Your task to perform on an android device: toggle location history Image 0: 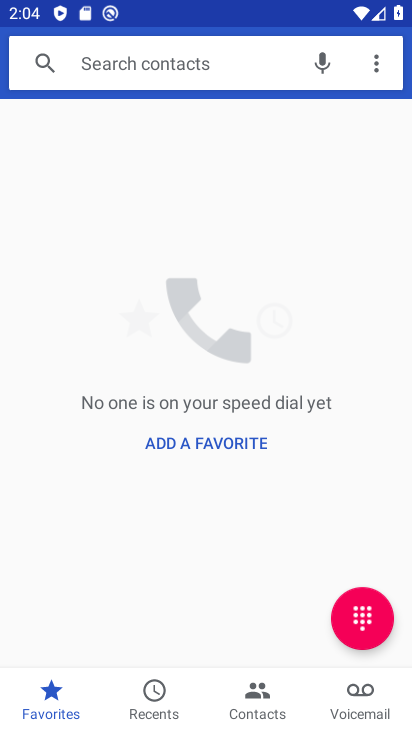
Step 0: press home button
Your task to perform on an android device: toggle location history Image 1: 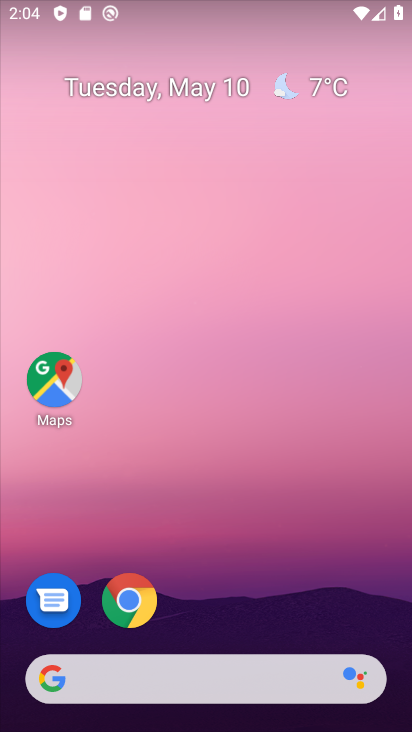
Step 1: drag from (179, 665) to (185, 253)
Your task to perform on an android device: toggle location history Image 2: 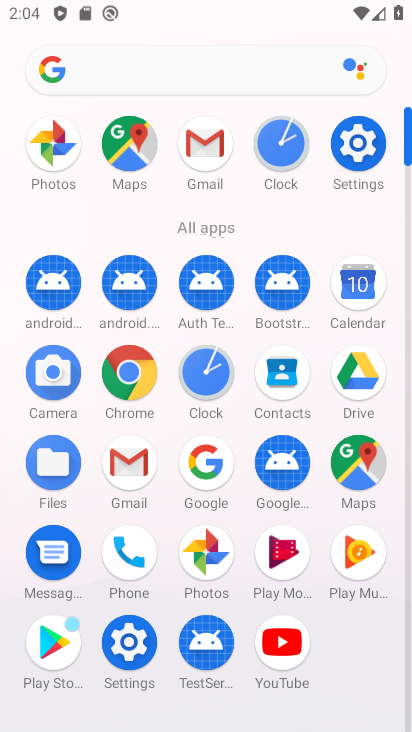
Step 2: click (127, 645)
Your task to perform on an android device: toggle location history Image 3: 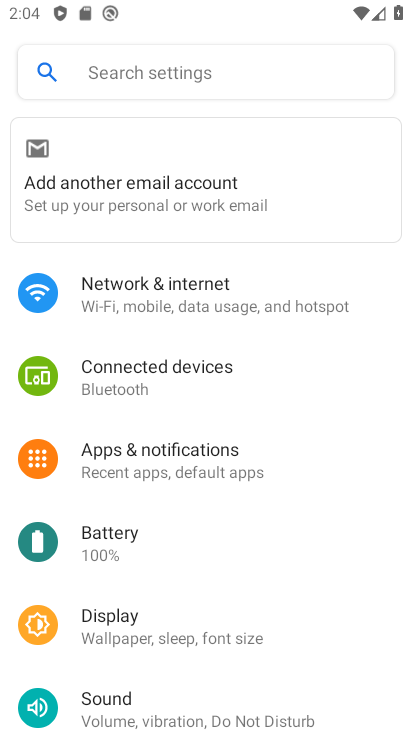
Step 3: drag from (155, 619) to (172, 11)
Your task to perform on an android device: toggle location history Image 4: 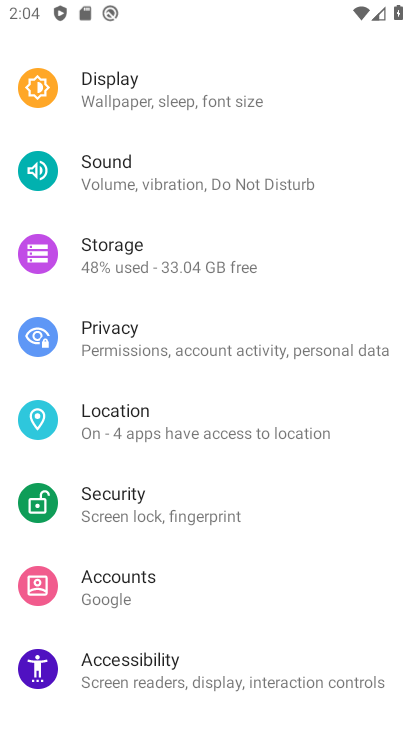
Step 4: click (143, 419)
Your task to perform on an android device: toggle location history Image 5: 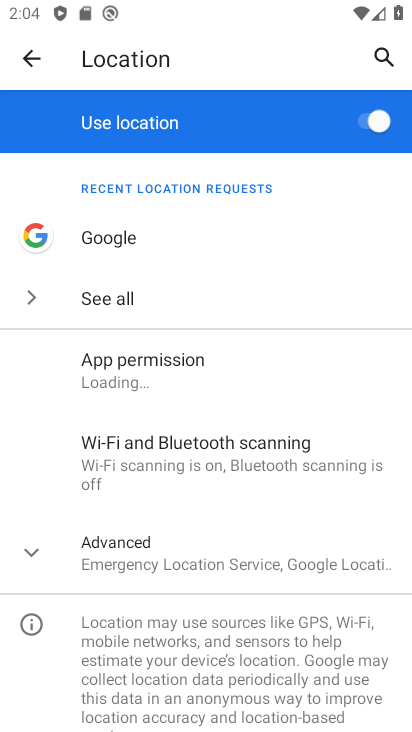
Step 5: click (183, 560)
Your task to perform on an android device: toggle location history Image 6: 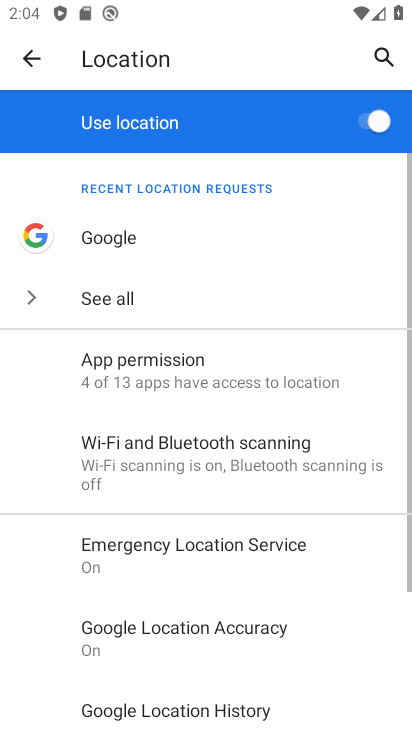
Step 6: click (190, 718)
Your task to perform on an android device: toggle location history Image 7: 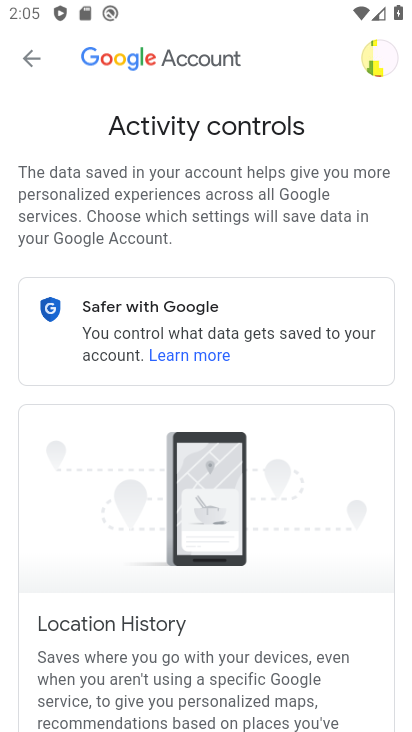
Step 7: drag from (318, 564) to (281, 108)
Your task to perform on an android device: toggle location history Image 8: 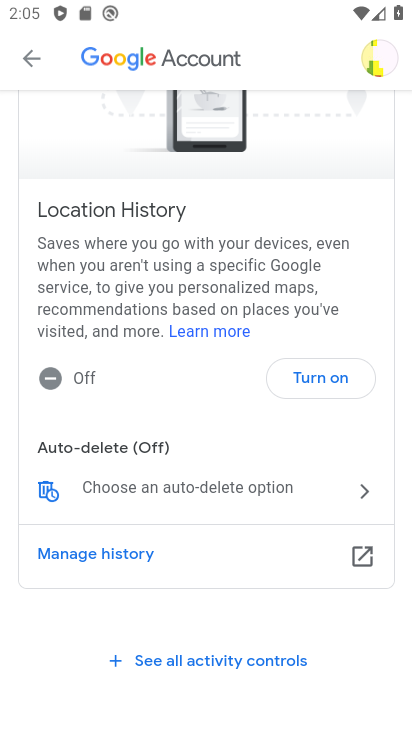
Step 8: click (294, 371)
Your task to perform on an android device: toggle location history Image 9: 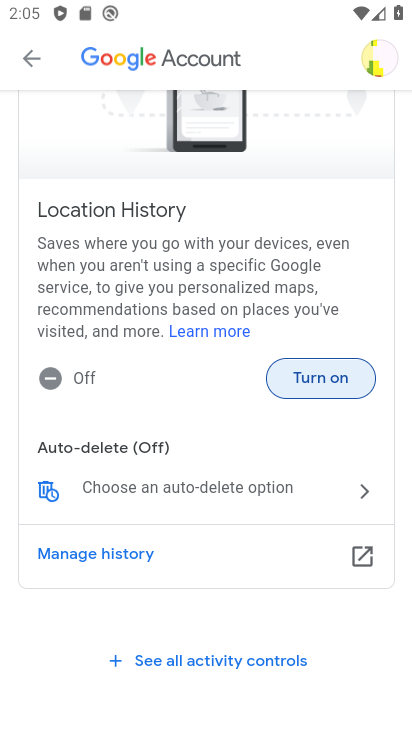
Step 9: click (315, 382)
Your task to perform on an android device: toggle location history Image 10: 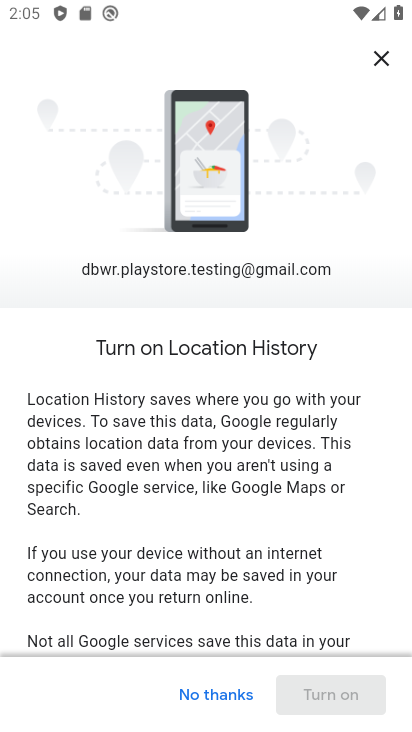
Step 10: drag from (298, 543) to (320, 112)
Your task to perform on an android device: toggle location history Image 11: 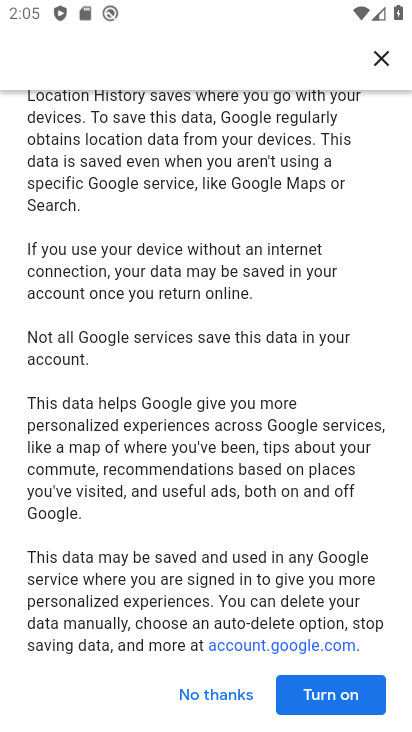
Step 11: click (335, 690)
Your task to perform on an android device: toggle location history Image 12: 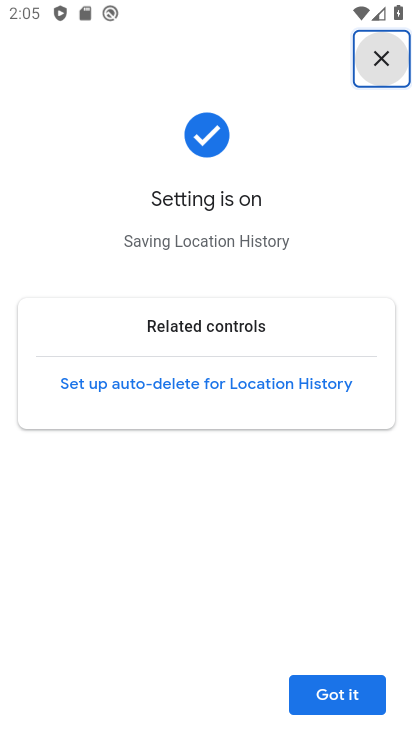
Step 12: click (329, 692)
Your task to perform on an android device: toggle location history Image 13: 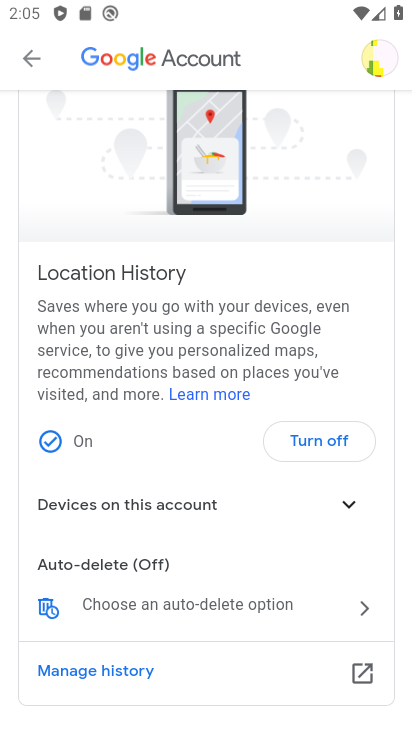
Step 13: task complete